Your task to perform on an android device: add a label to a message in the gmail app Image 0: 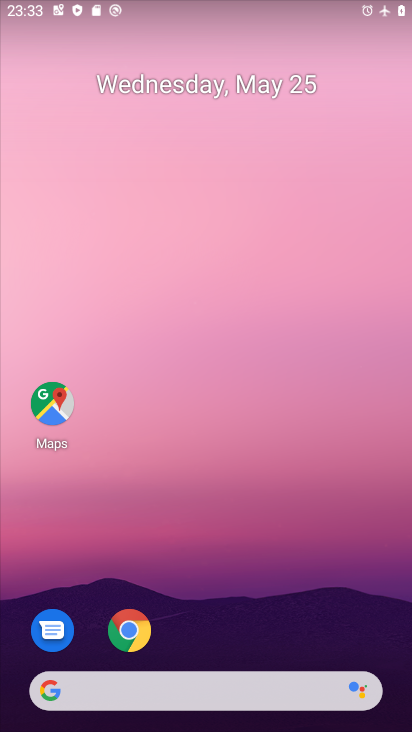
Step 0: drag from (210, 651) to (209, 218)
Your task to perform on an android device: add a label to a message in the gmail app Image 1: 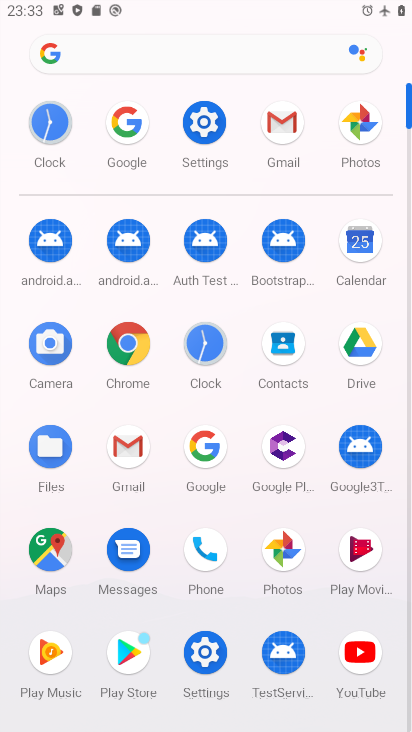
Step 1: click (271, 126)
Your task to perform on an android device: add a label to a message in the gmail app Image 2: 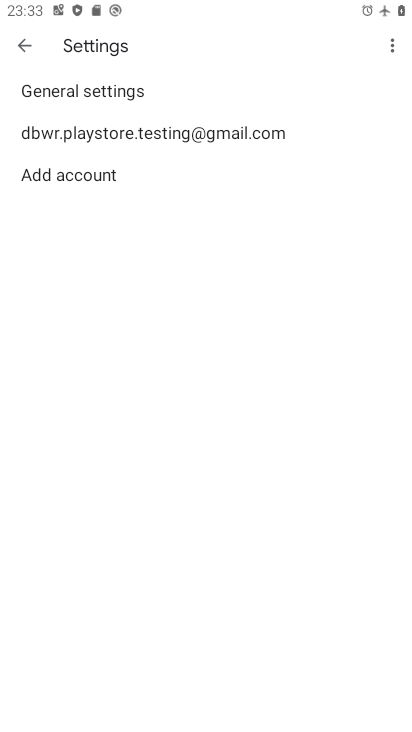
Step 2: click (24, 45)
Your task to perform on an android device: add a label to a message in the gmail app Image 3: 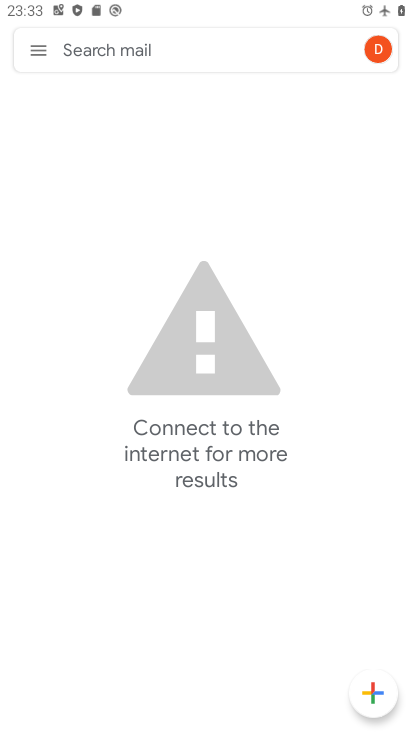
Step 3: click (24, 45)
Your task to perform on an android device: add a label to a message in the gmail app Image 4: 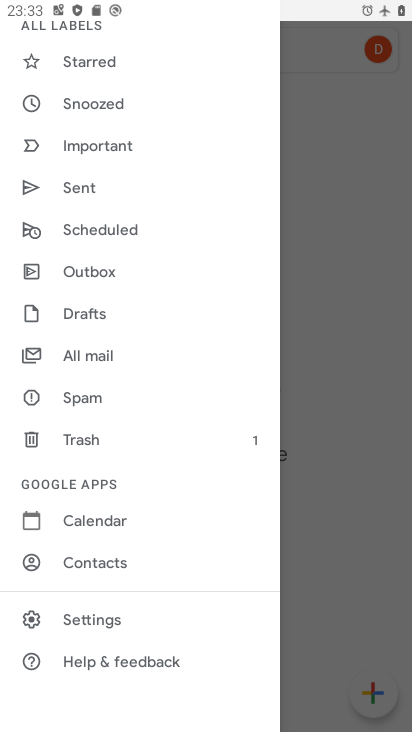
Step 4: drag from (126, 168) to (127, 433)
Your task to perform on an android device: add a label to a message in the gmail app Image 5: 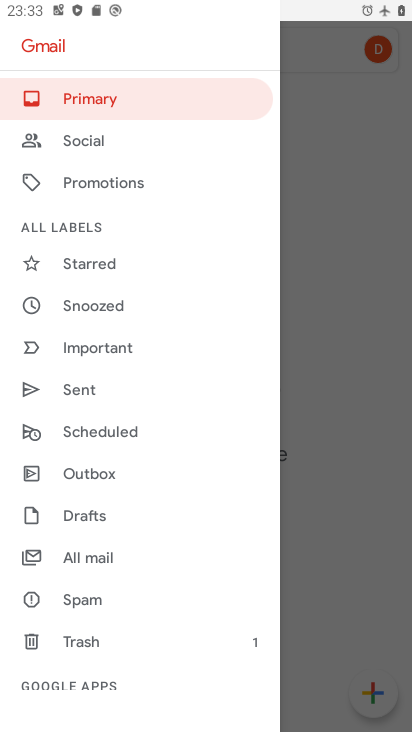
Step 5: click (104, 562)
Your task to perform on an android device: add a label to a message in the gmail app Image 6: 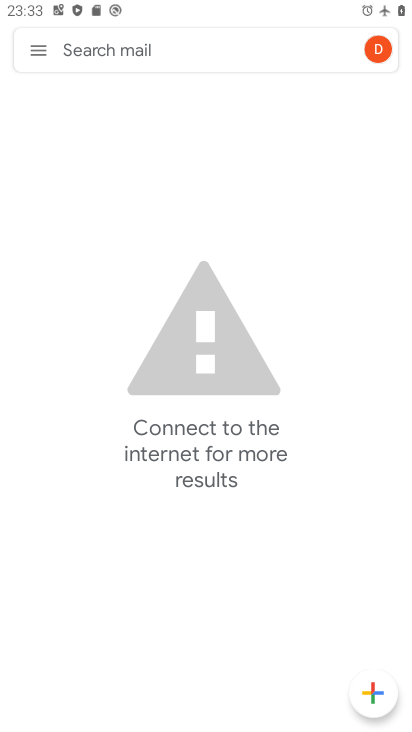
Step 6: task complete